Your task to perform on an android device: change the clock style Image 0: 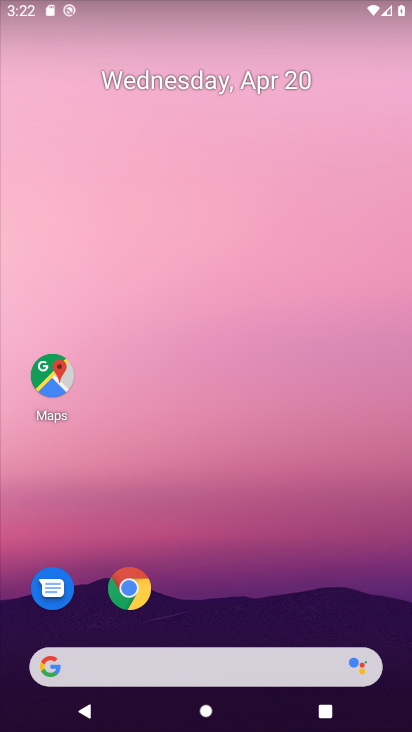
Step 0: drag from (265, 563) to (251, 207)
Your task to perform on an android device: change the clock style Image 1: 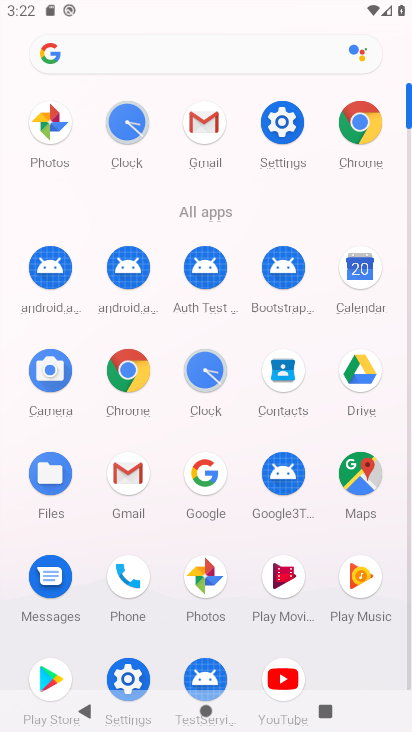
Step 1: click (115, 116)
Your task to perform on an android device: change the clock style Image 2: 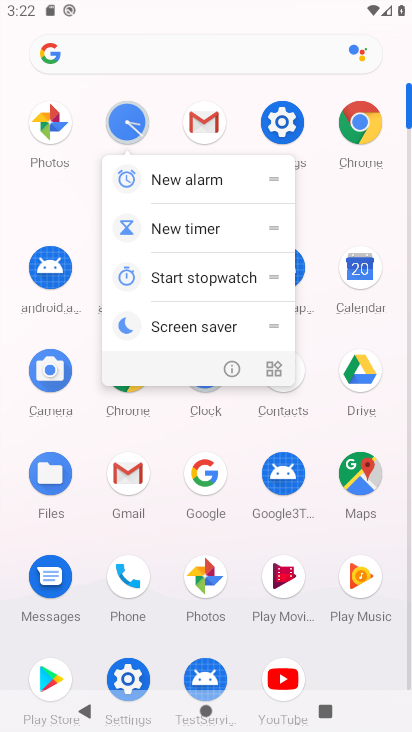
Step 2: click (116, 120)
Your task to perform on an android device: change the clock style Image 3: 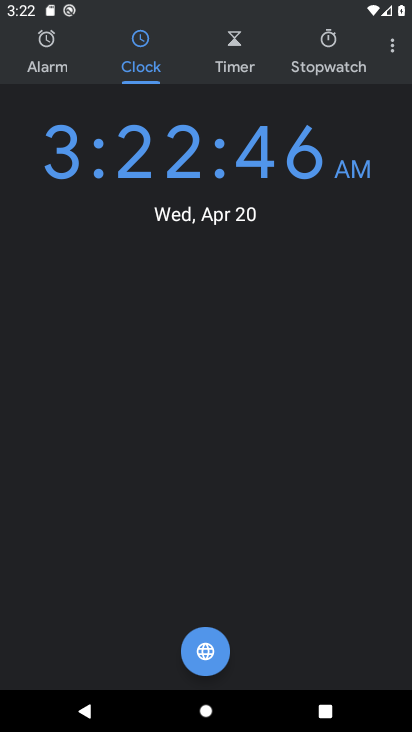
Step 3: click (396, 45)
Your task to perform on an android device: change the clock style Image 4: 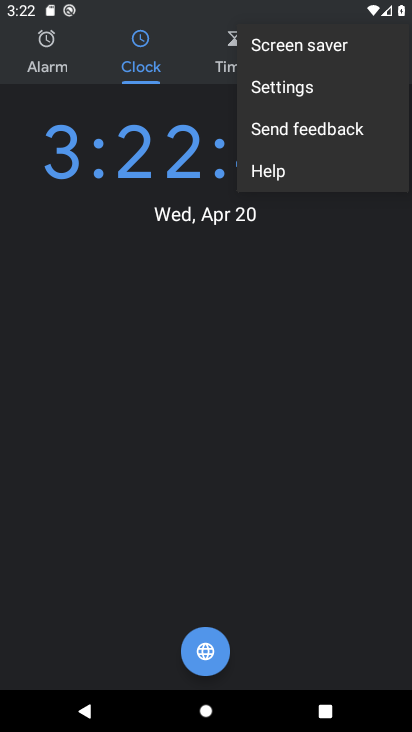
Step 4: click (343, 94)
Your task to perform on an android device: change the clock style Image 5: 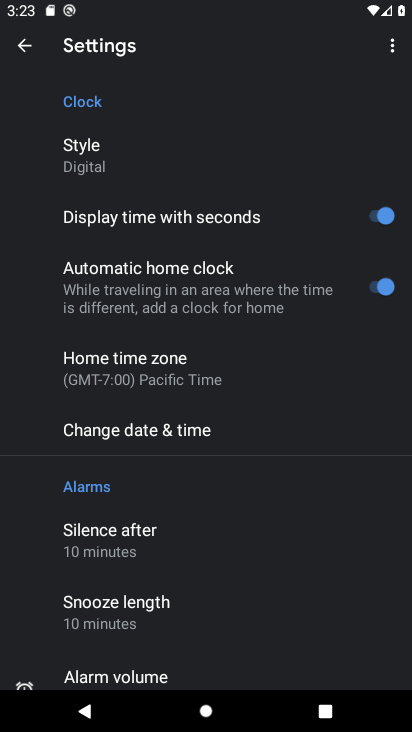
Step 5: click (88, 159)
Your task to perform on an android device: change the clock style Image 6: 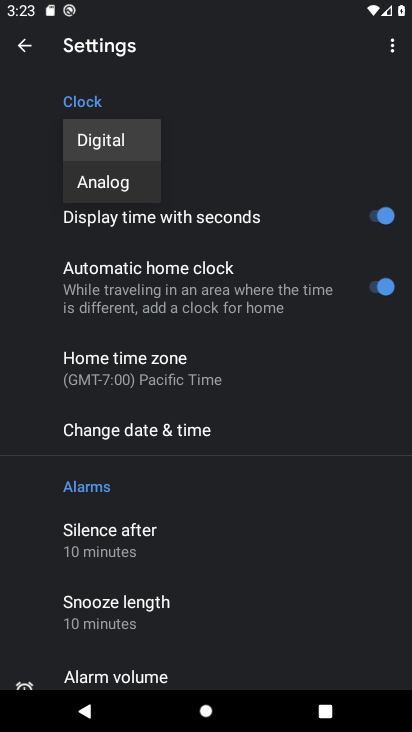
Step 6: click (101, 188)
Your task to perform on an android device: change the clock style Image 7: 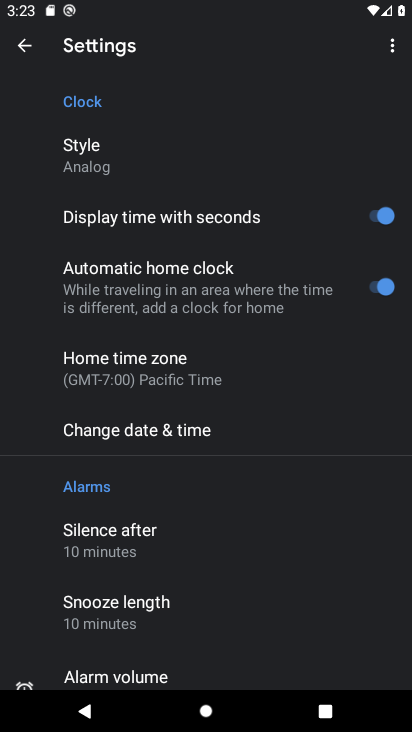
Step 7: task complete